Your task to perform on an android device: open app "Etsy: Buy & Sell Unique Items" (install if not already installed) Image 0: 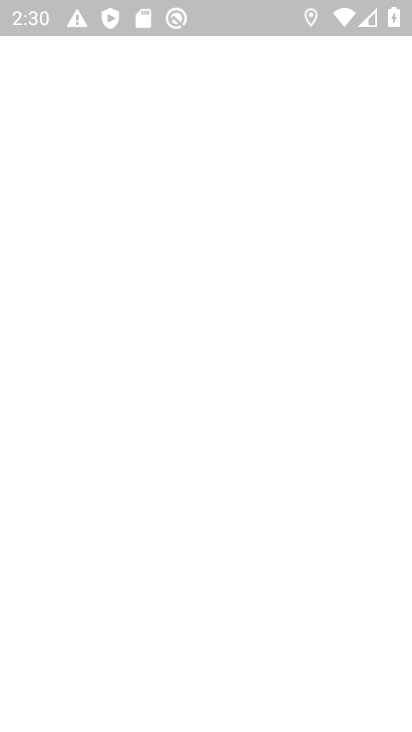
Step 0: press home button
Your task to perform on an android device: open app "Etsy: Buy & Sell Unique Items" (install if not already installed) Image 1: 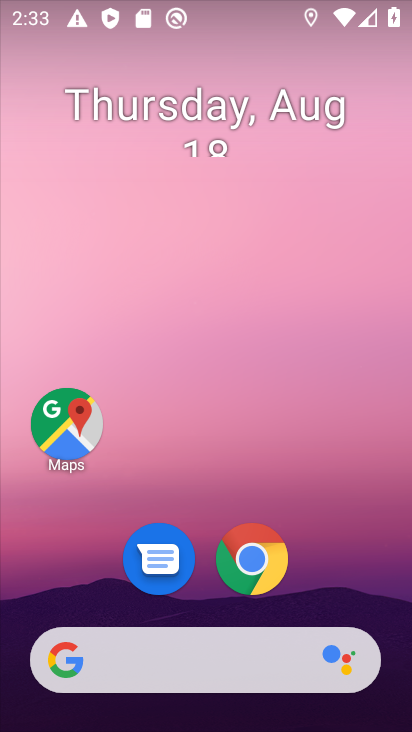
Step 1: drag from (281, 513) to (317, 0)
Your task to perform on an android device: open app "Etsy: Buy & Sell Unique Items" (install if not already installed) Image 2: 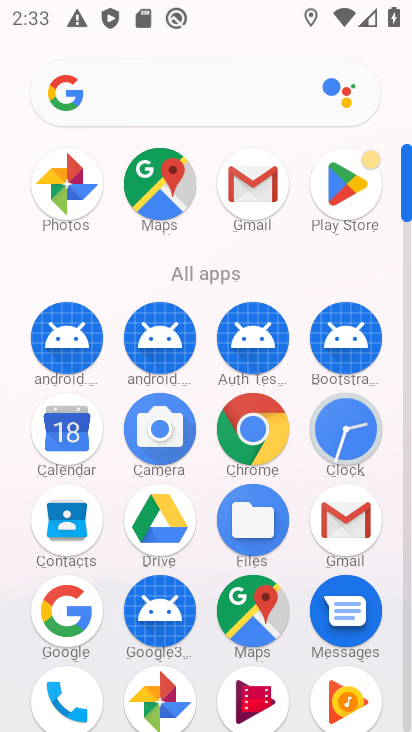
Step 2: click (341, 188)
Your task to perform on an android device: open app "Etsy: Buy & Sell Unique Items" (install if not already installed) Image 3: 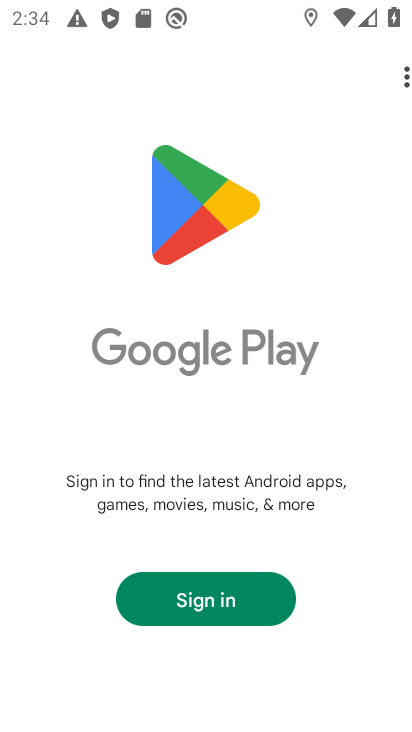
Step 3: click (249, 583)
Your task to perform on an android device: open app "Etsy: Buy & Sell Unique Items" (install if not already installed) Image 4: 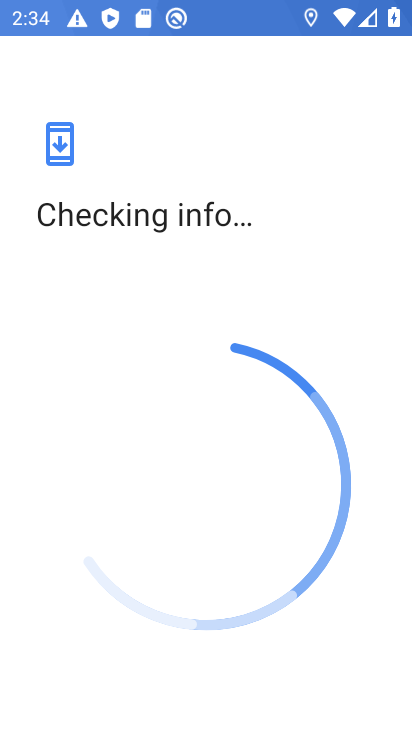
Step 4: task complete